Your task to perform on an android device: Open privacy settings Image 0: 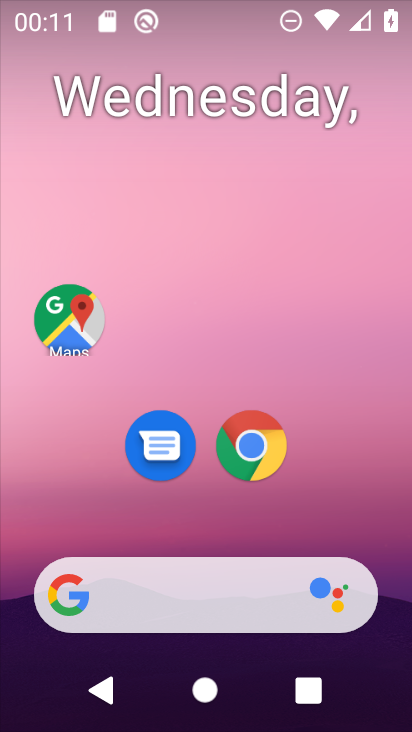
Step 0: drag from (283, 542) to (205, 33)
Your task to perform on an android device: Open privacy settings Image 1: 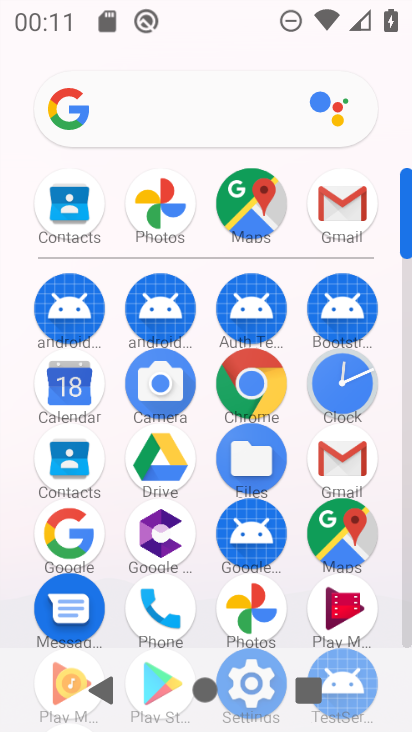
Step 1: drag from (186, 575) to (154, 292)
Your task to perform on an android device: Open privacy settings Image 2: 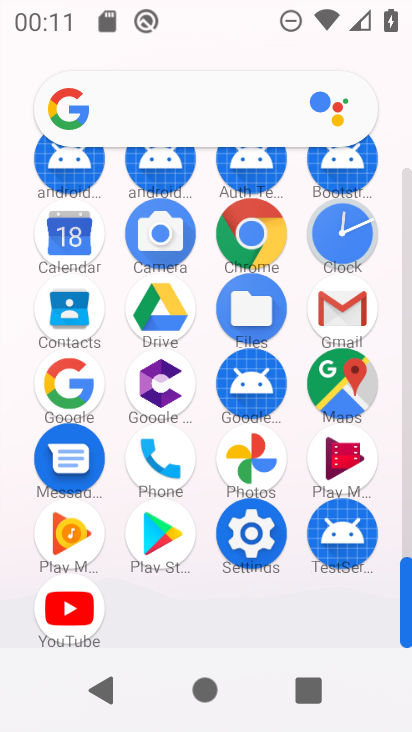
Step 2: click (248, 526)
Your task to perform on an android device: Open privacy settings Image 3: 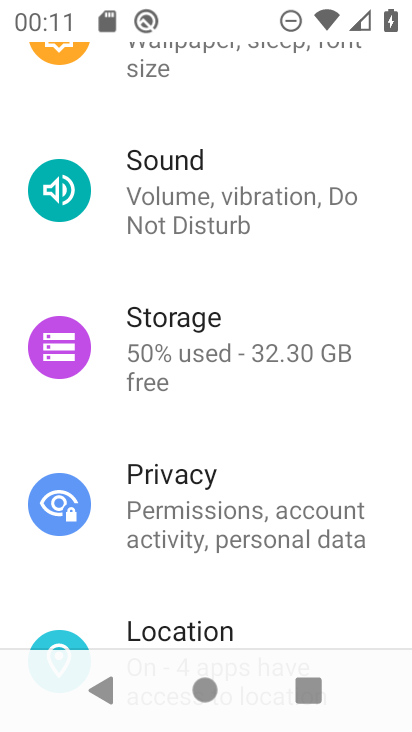
Step 3: drag from (201, 566) to (220, 372)
Your task to perform on an android device: Open privacy settings Image 4: 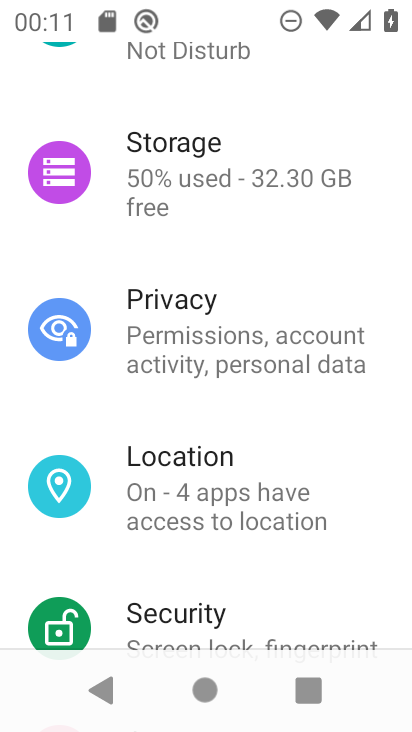
Step 4: click (205, 350)
Your task to perform on an android device: Open privacy settings Image 5: 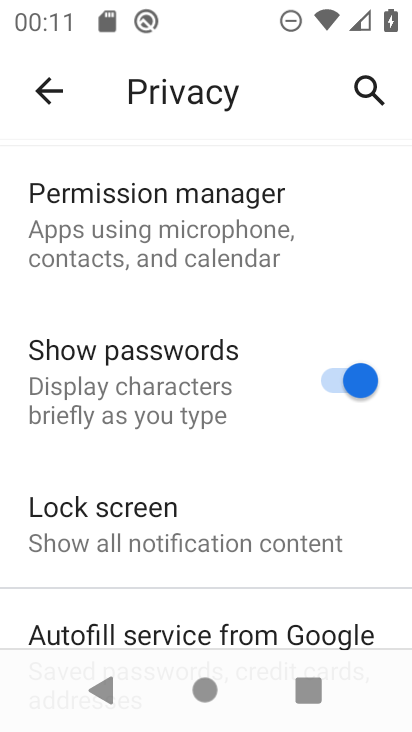
Step 5: task complete